Your task to perform on an android device: open a bookmark in the chrome app Image 0: 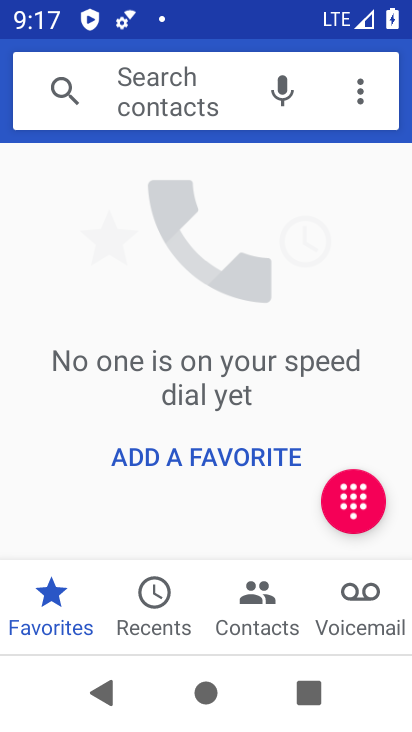
Step 0: press home button
Your task to perform on an android device: open a bookmark in the chrome app Image 1: 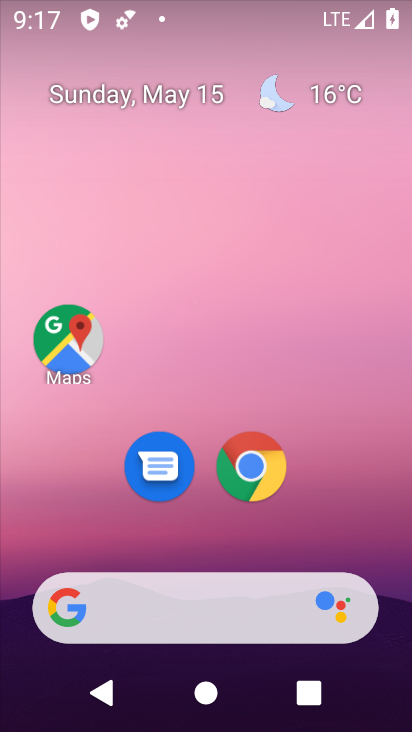
Step 1: click (257, 469)
Your task to perform on an android device: open a bookmark in the chrome app Image 2: 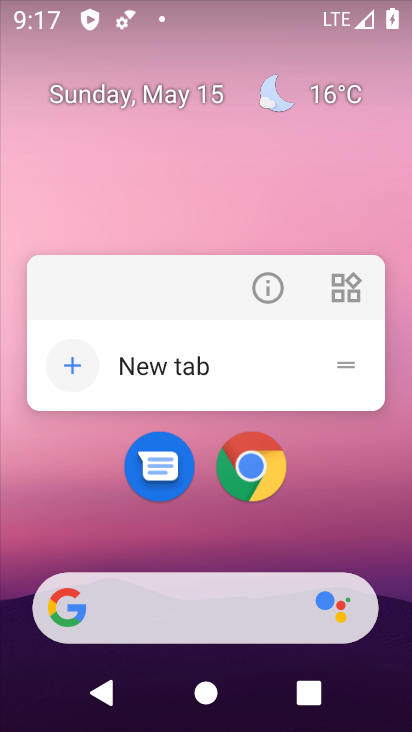
Step 2: click (256, 470)
Your task to perform on an android device: open a bookmark in the chrome app Image 3: 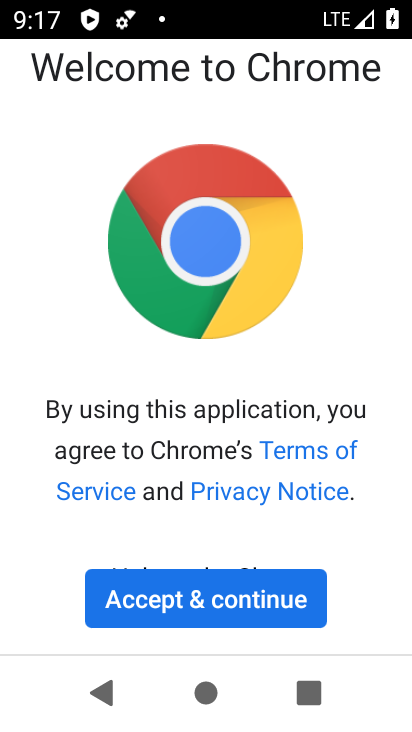
Step 3: click (263, 607)
Your task to perform on an android device: open a bookmark in the chrome app Image 4: 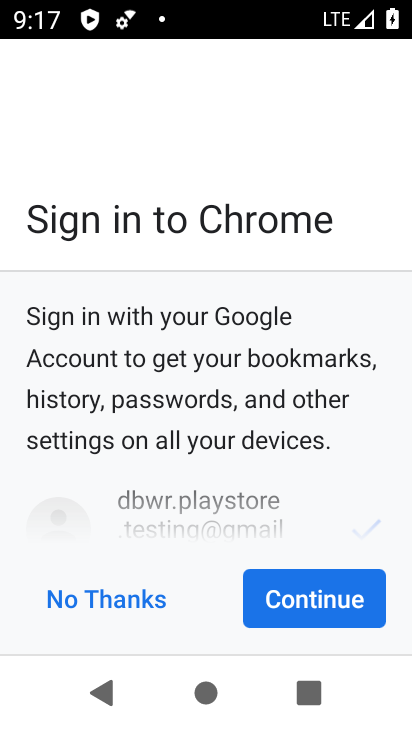
Step 4: click (366, 618)
Your task to perform on an android device: open a bookmark in the chrome app Image 5: 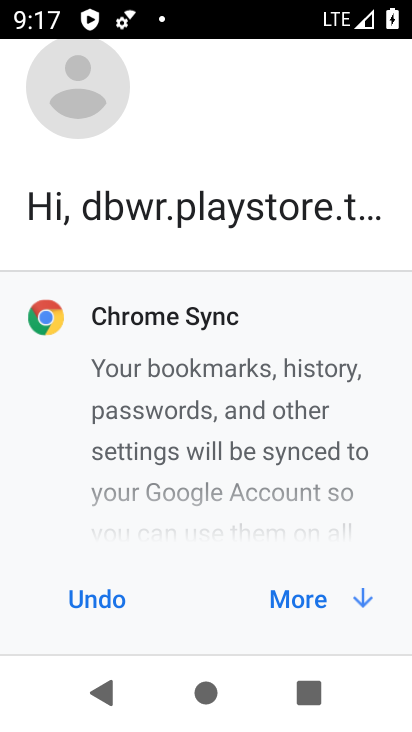
Step 5: click (320, 612)
Your task to perform on an android device: open a bookmark in the chrome app Image 6: 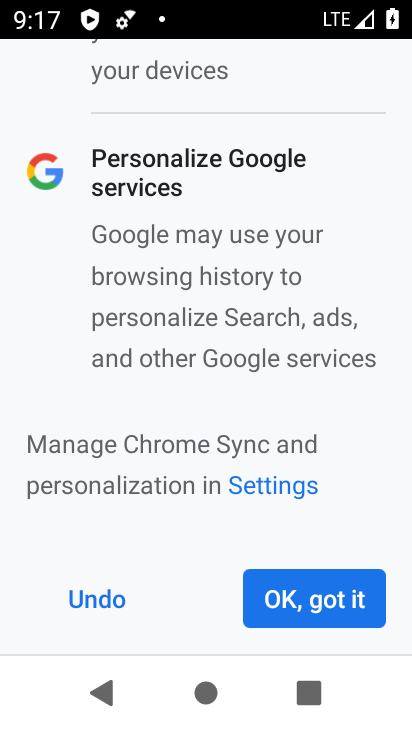
Step 6: click (320, 612)
Your task to perform on an android device: open a bookmark in the chrome app Image 7: 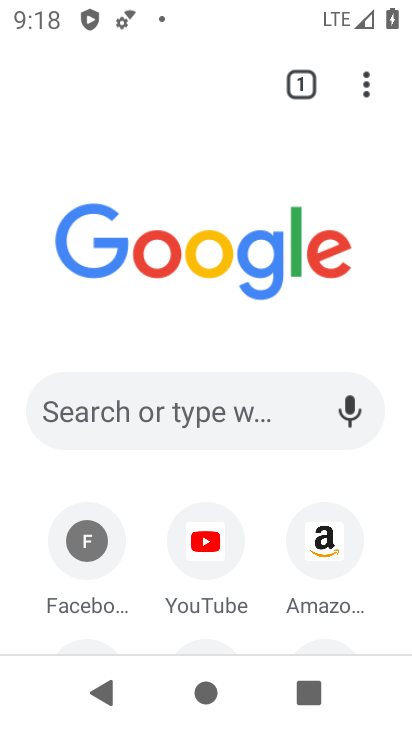
Step 7: drag from (371, 102) to (280, 348)
Your task to perform on an android device: open a bookmark in the chrome app Image 8: 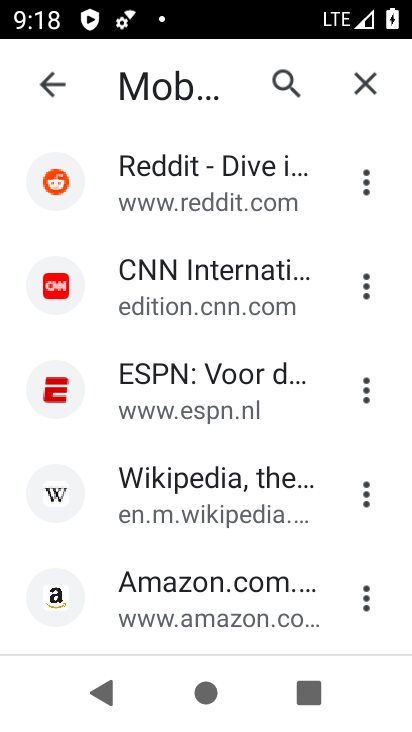
Step 8: click (202, 490)
Your task to perform on an android device: open a bookmark in the chrome app Image 9: 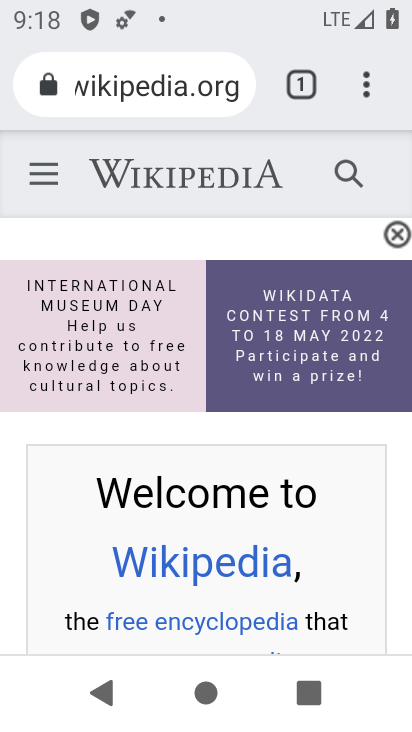
Step 9: task complete